Your task to perform on an android device: Open wifi settings Image 0: 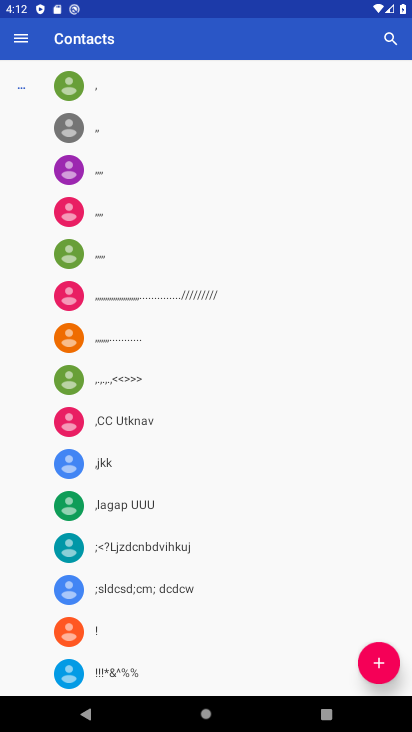
Step 0: drag from (176, 683) to (258, 542)
Your task to perform on an android device: Open wifi settings Image 1: 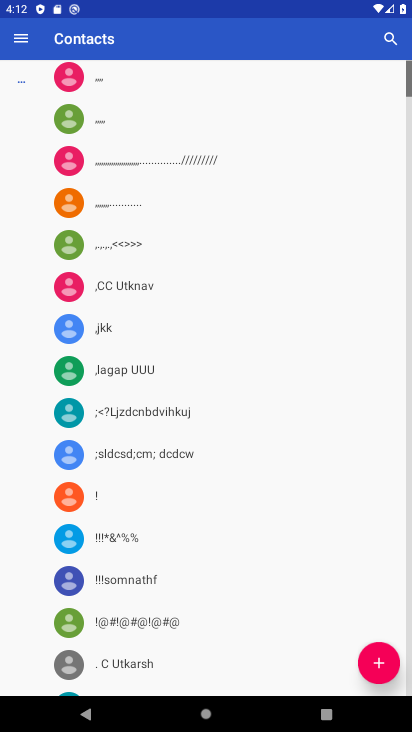
Step 1: press home button
Your task to perform on an android device: Open wifi settings Image 2: 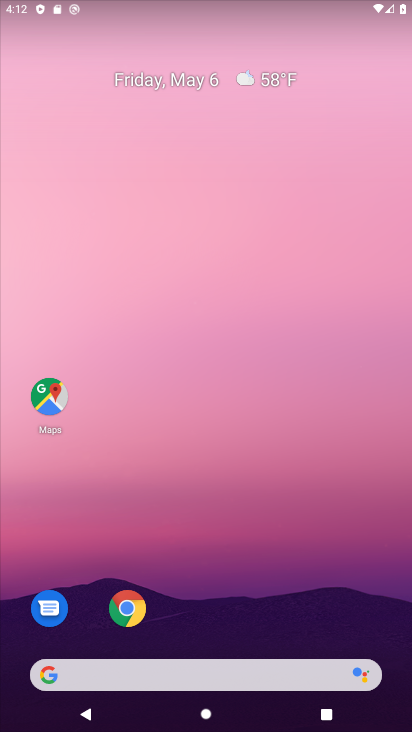
Step 2: drag from (191, 684) to (321, 69)
Your task to perform on an android device: Open wifi settings Image 3: 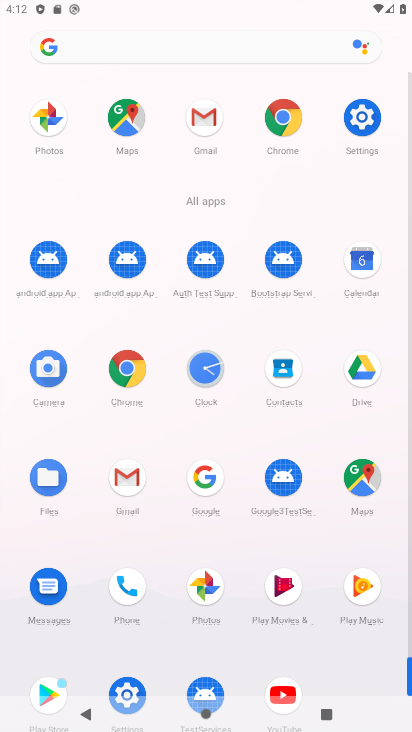
Step 3: drag from (155, 565) to (232, 350)
Your task to perform on an android device: Open wifi settings Image 4: 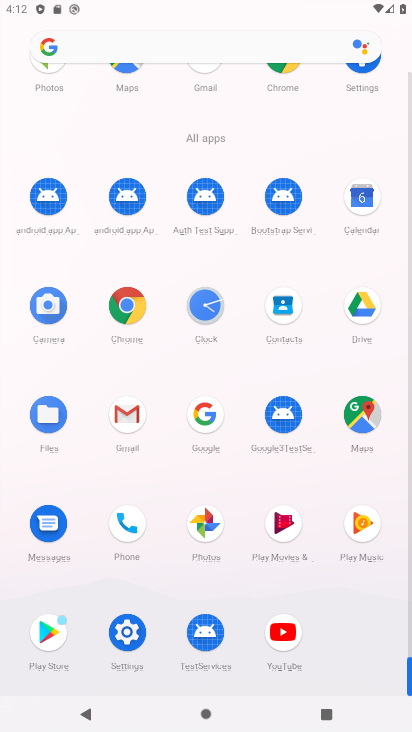
Step 4: click (135, 649)
Your task to perform on an android device: Open wifi settings Image 5: 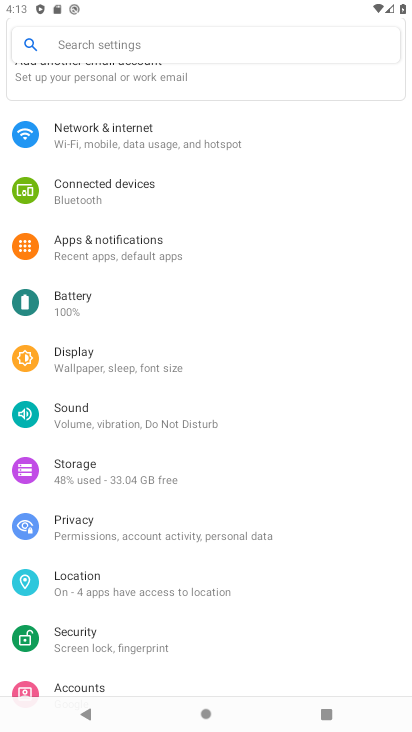
Step 5: click (193, 147)
Your task to perform on an android device: Open wifi settings Image 6: 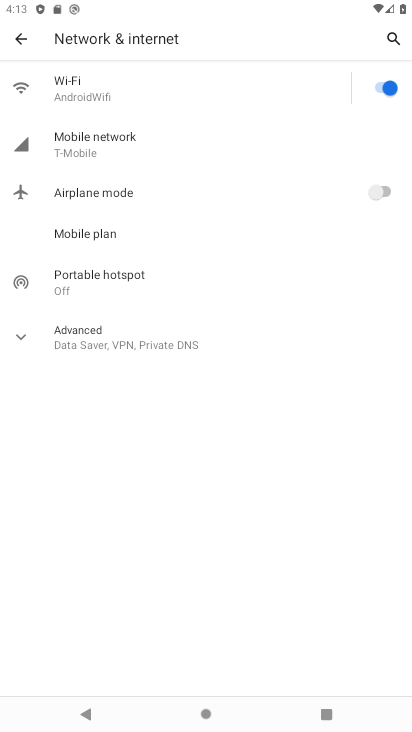
Step 6: click (172, 94)
Your task to perform on an android device: Open wifi settings Image 7: 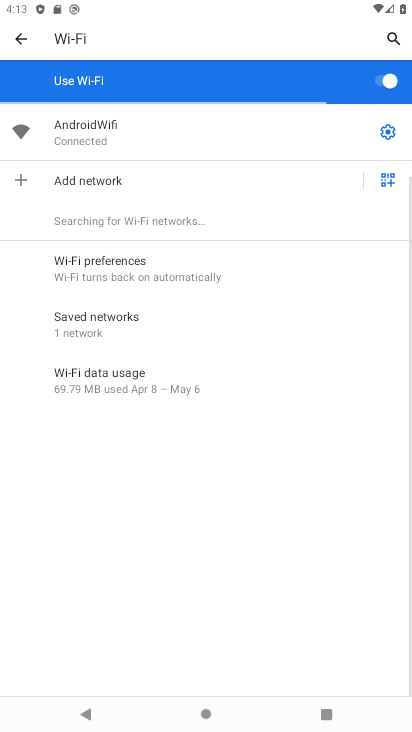
Step 7: task complete